Your task to perform on an android device: Go to Android settings Image 0: 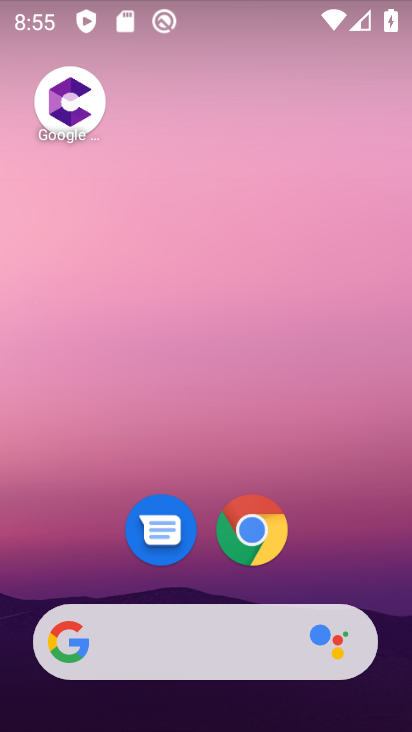
Step 0: drag from (321, 453) to (253, 17)
Your task to perform on an android device: Go to Android settings Image 1: 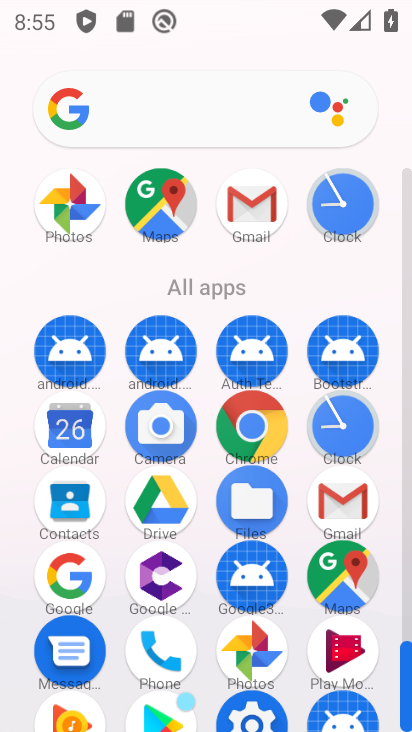
Step 1: drag from (16, 572) to (9, 251)
Your task to perform on an android device: Go to Android settings Image 2: 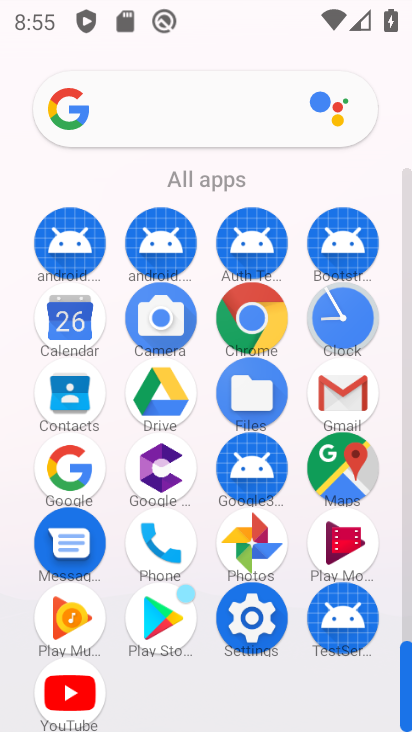
Step 2: click (250, 616)
Your task to perform on an android device: Go to Android settings Image 3: 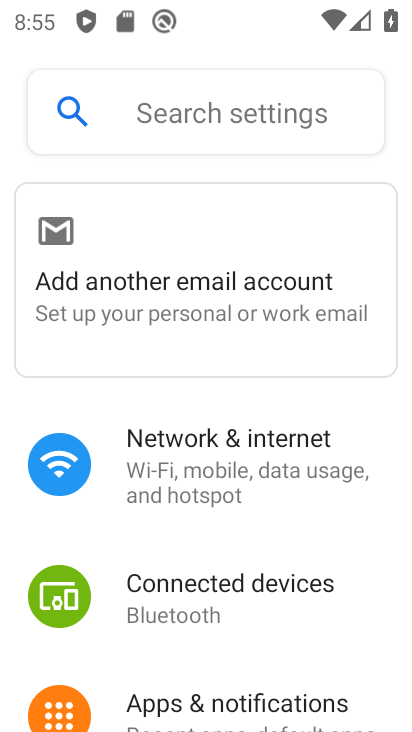
Step 3: task complete